Your task to perform on an android device: find photos in the google photos app Image 0: 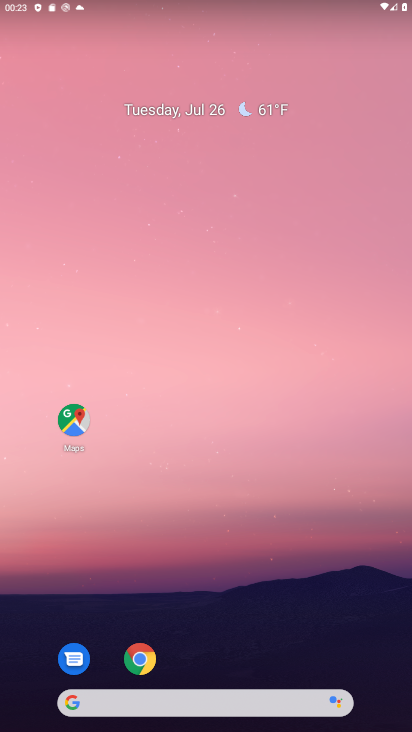
Step 0: drag from (308, 598) to (208, 8)
Your task to perform on an android device: find photos in the google photos app Image 1: 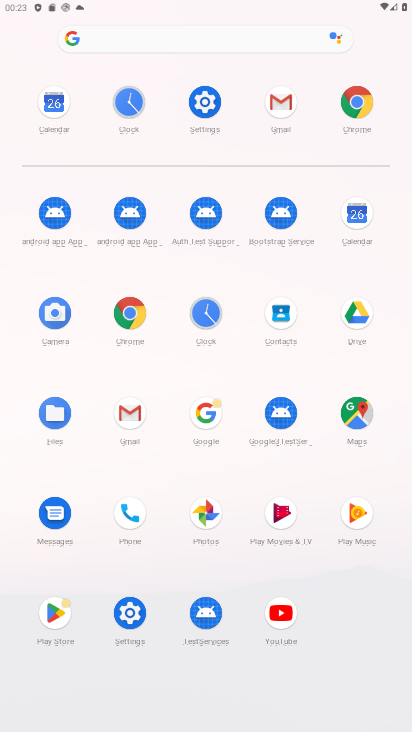
Step 1: click (202, 519)
Your task to perform on an android device: find photos in the google photos app Image 2: 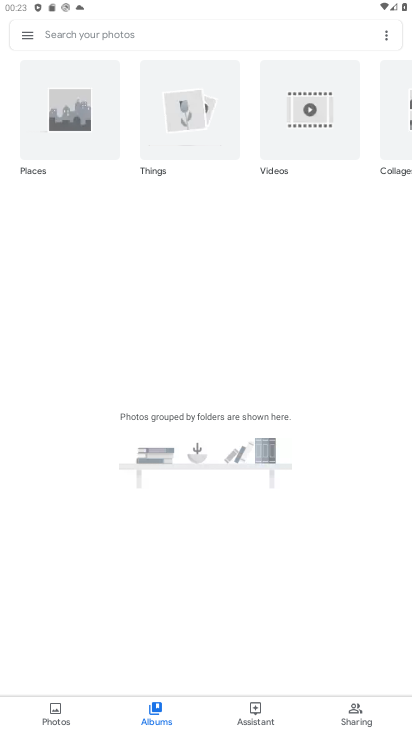
Step 2: click (67, 724)
Your task to perform on an android device: find photos in the google photos app Image 3: 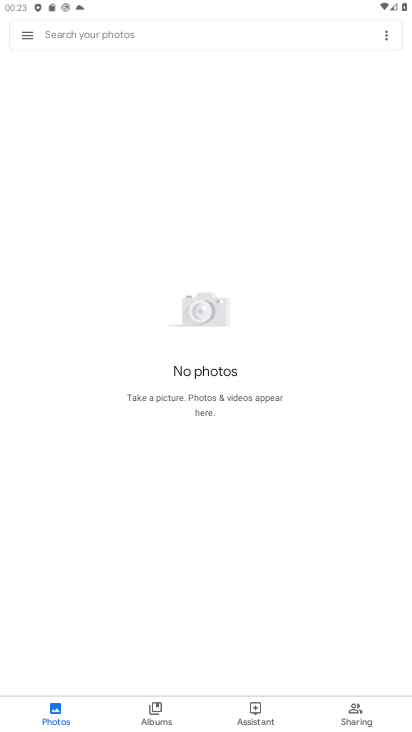
Step 3: task complete